Your task to perform on an android device: search for starred emails in the gmail app Image 0: 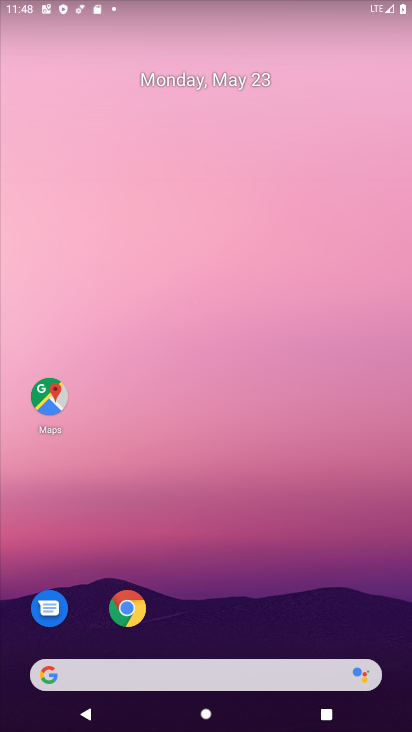
Step 0: drag from (210, 637) to (241, 59)
Your task to perform on an android device: search for starred emails in the gmail app Image 1: 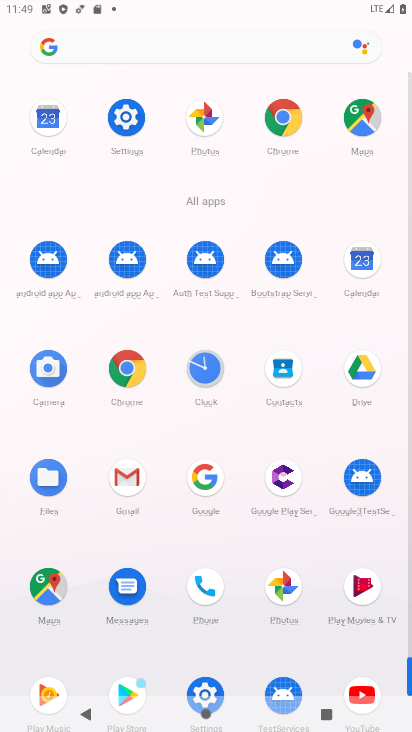
Step 1: click (126, 475)
Your task to perform on an android device: search for starred emails in the gmail app Image 2: 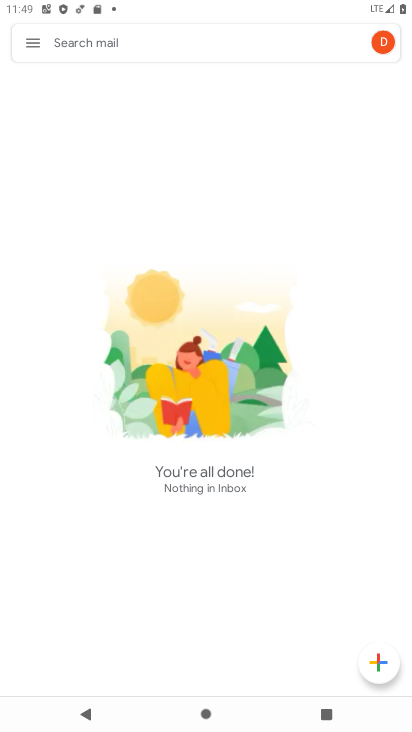
Step 2: click (30, 38)
Your task to perform on an android device: search for starred emails in the gmail app Image 3: 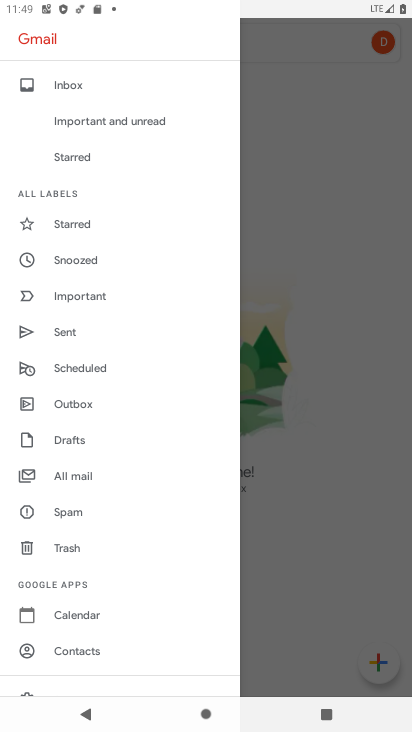
Step 3: click (101, 219)
Your task to perform on an android device: search for starred emails in the gmail app Image 4: 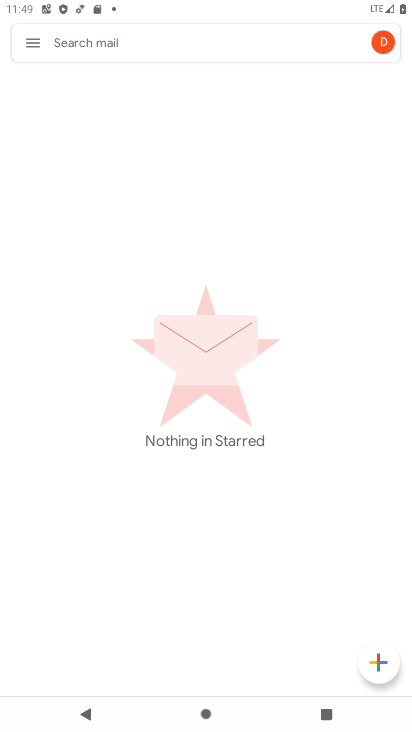
Step 4: task complete